Your task to perform on an android device: make emails show in primary in the gmail app Image 0: 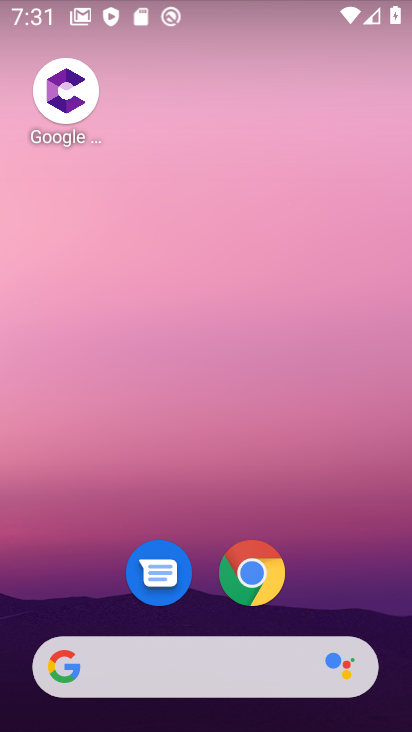
Step 0: press home button
Your task to perform on an android device: make emails show in primary in the gmail app Image 1: 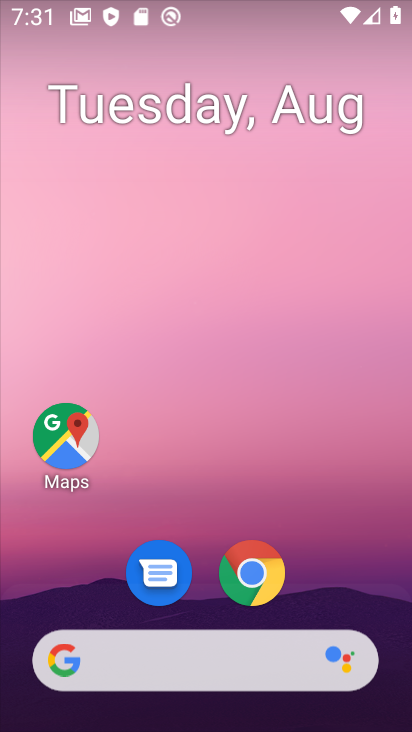
Step 1: drag from (207, 609) to (271, 39)
Your task to perform on an android device: make emails show in primary in the gmail app Image 2: 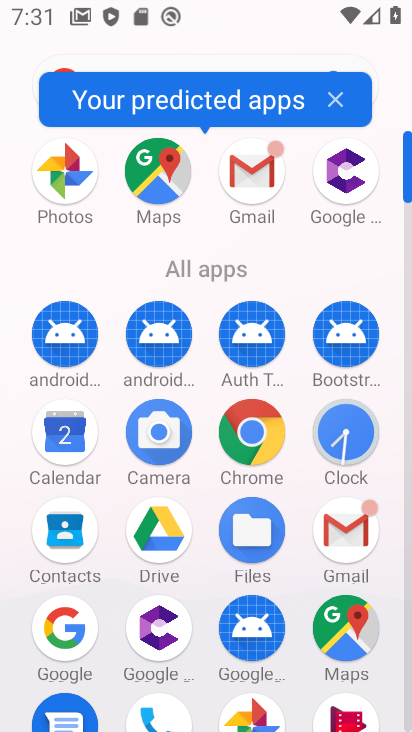
Step 2: click (250, 160)
Your task to perform on an android device: make emails show in primary in the gmail app Image 3: 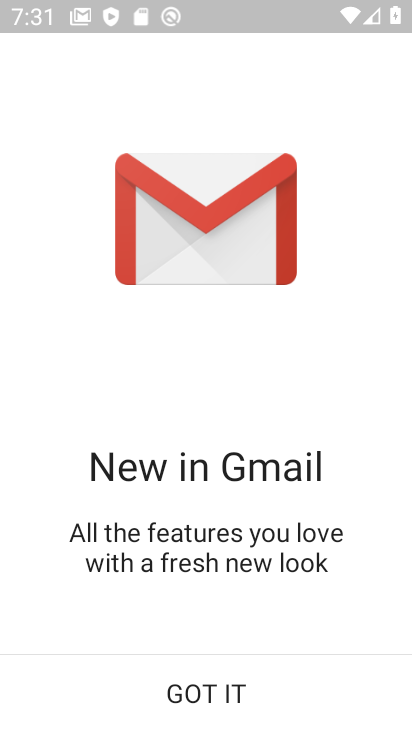
Step 3: click (214, 701)
Your task to perform on an android device: make emails show in primary in the gmail app Image 4: 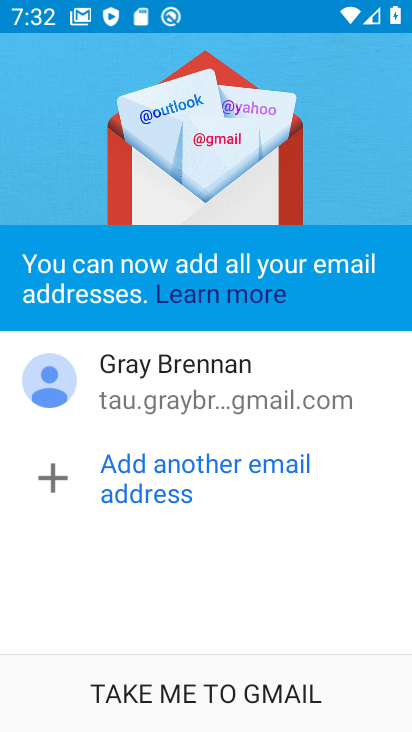
Step 4: click (186, 701)
Your task to perform on an android device: make emails show in primary in the gmail app Image 5: 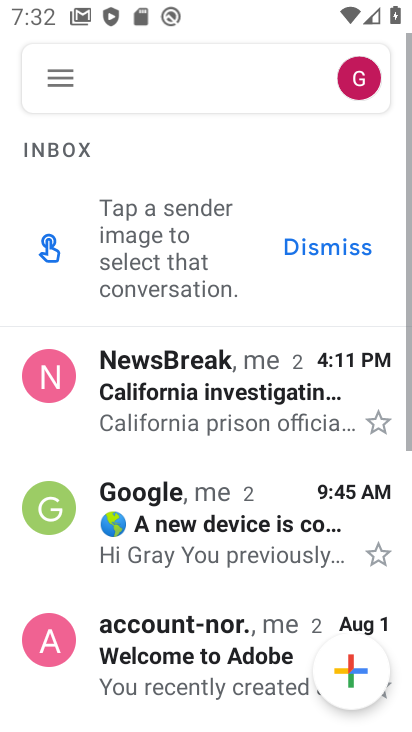
Step 5: click (61, 70)
Your task to perform on an android device: make emails show in primary in the gmail app Image 6: 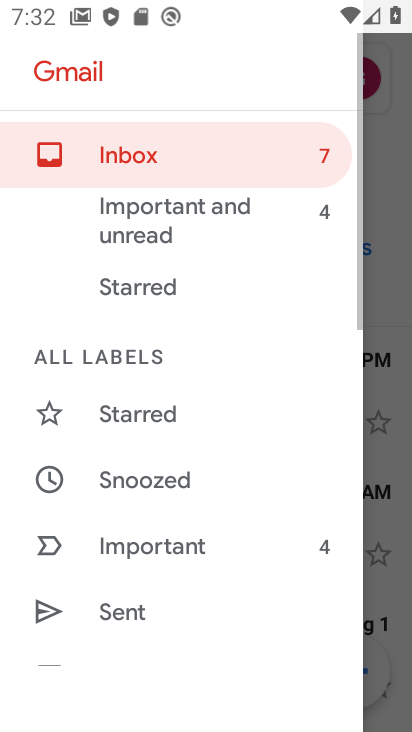
Step 6: drag from (126, 620) to (163, 105)
Your task to perform on an android device: make emails show in primary in the gmail app Image 7: 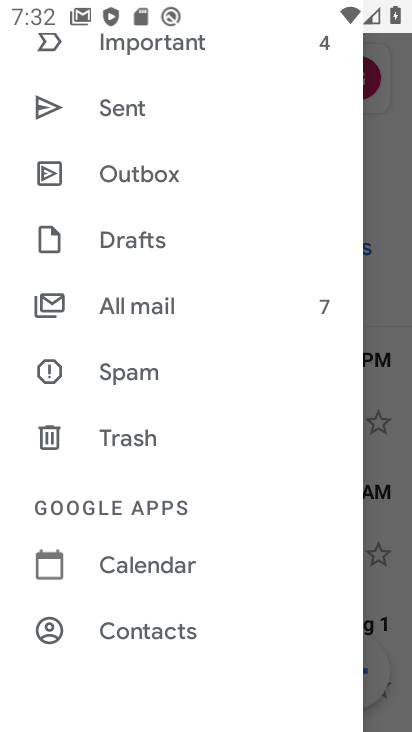
Step 7: drag from (158, 638) to (212, 21)
Your task to perform on an android device: make emails show in primary in the gmail app Image 8: 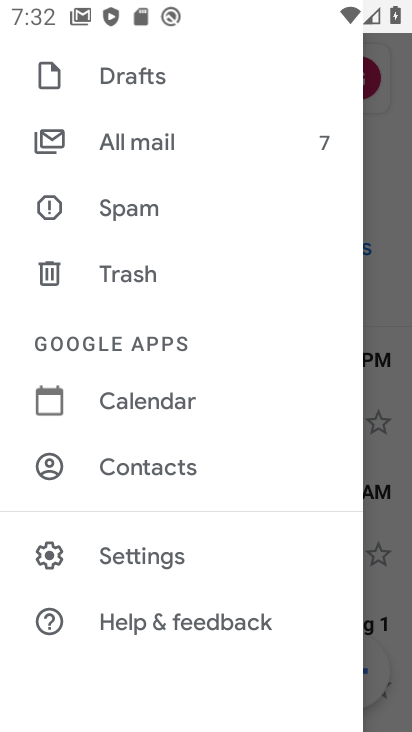
Step 8: click (83, 545)
Your task to perform on an android device: make emails show in primary in the gmail app Image 9: 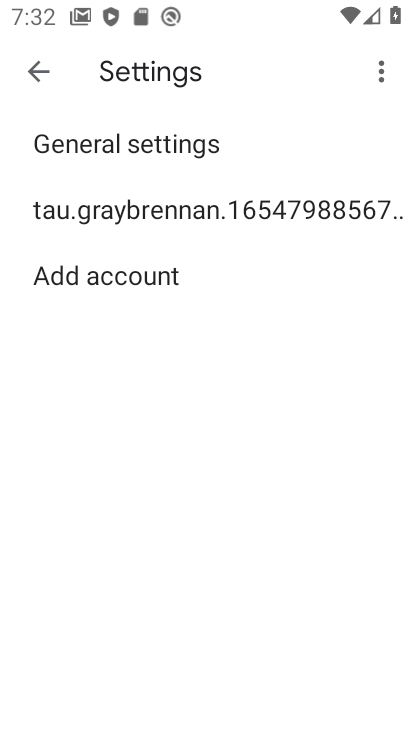
Step 9: click (135, 207)
Your task to perform on an android device: make emails show in primary in the gmail app Image 10: 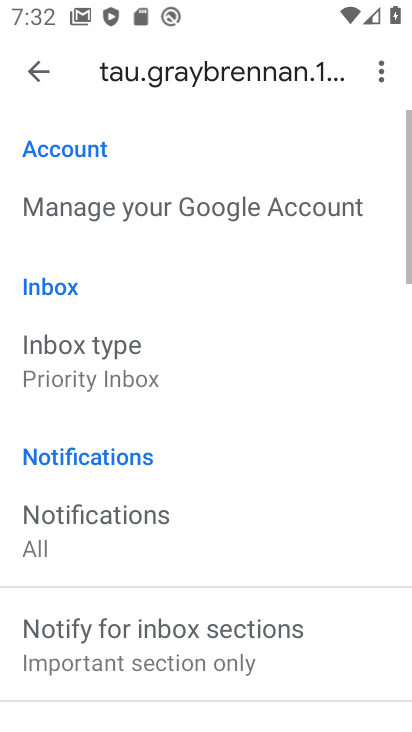
Step 10: click (123, 369)
Your task to perform on an android device: make emails show in primary in the gmail app Image 11: 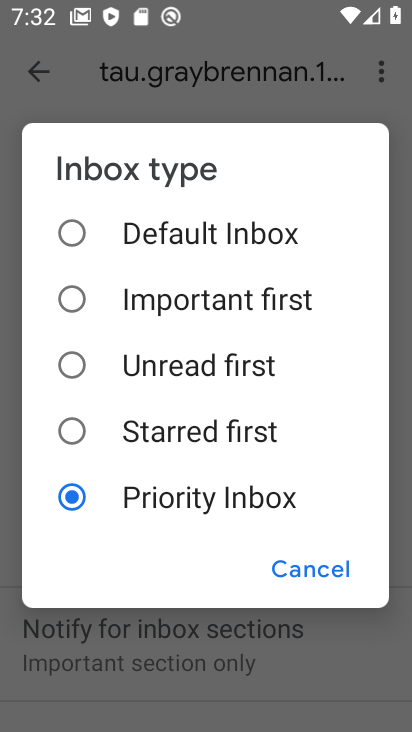
Step 11: click (73, 235)
Your task to perform on an android device: make emails show in primary in the gmail app Image 12: 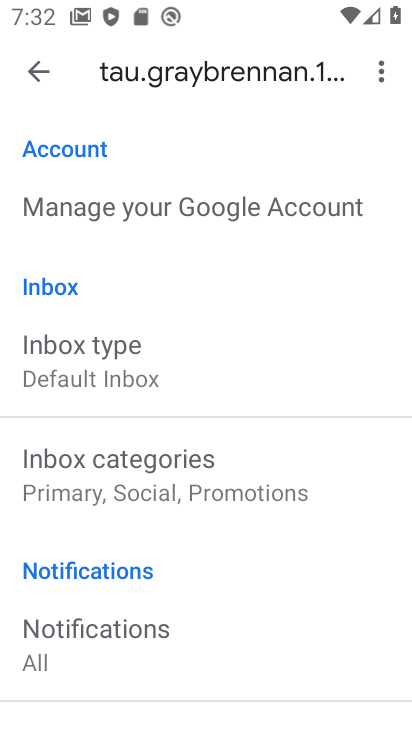
Step 12: task complete